Your task to perform on an android device: Show me popular games on the Play Store Image 0: 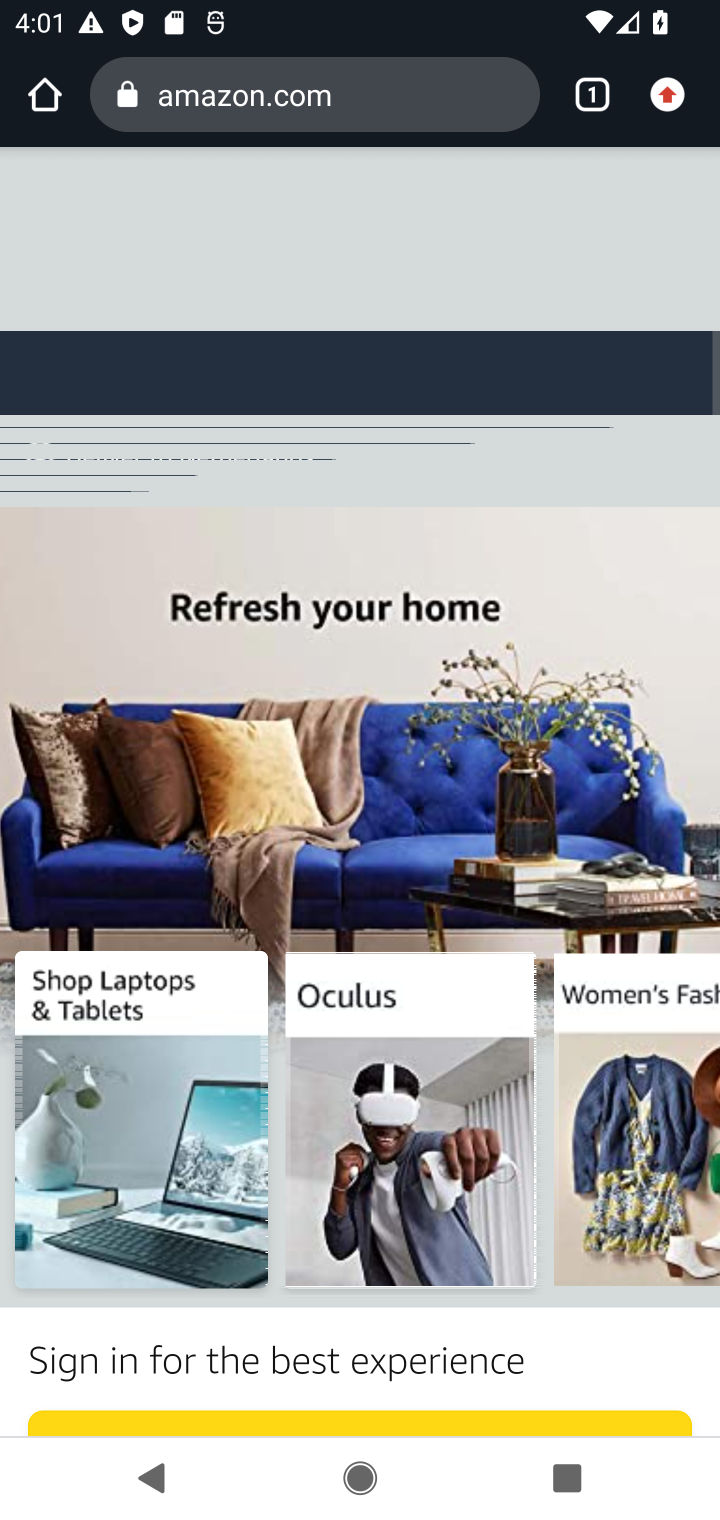
Step 0: press home button
Your task to perform on an android device: Show me popular games on the Play Store Image 1: 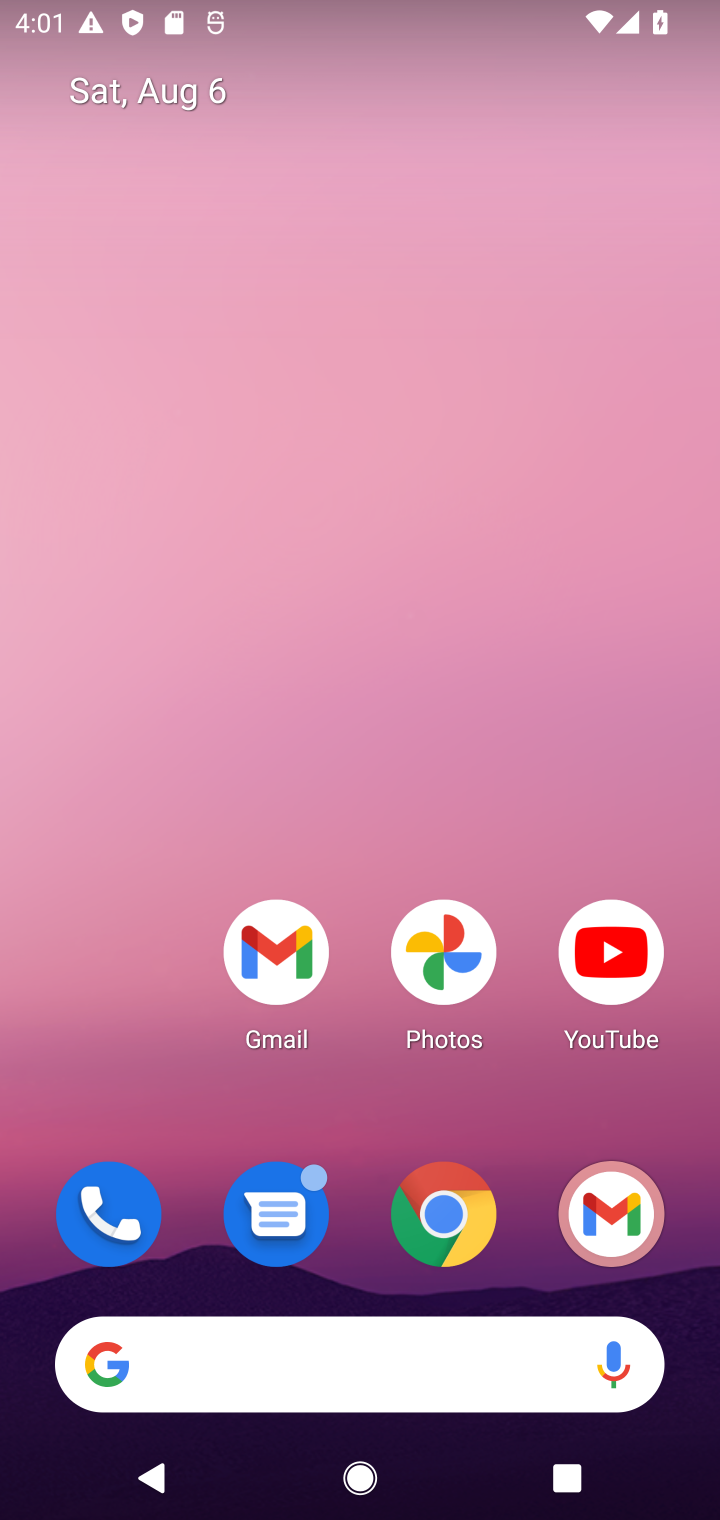
Step 1: drag from (361, 1264) to (365, 528)
Your task to perform on an android device: Show me popular games on the Play Store Image 2: 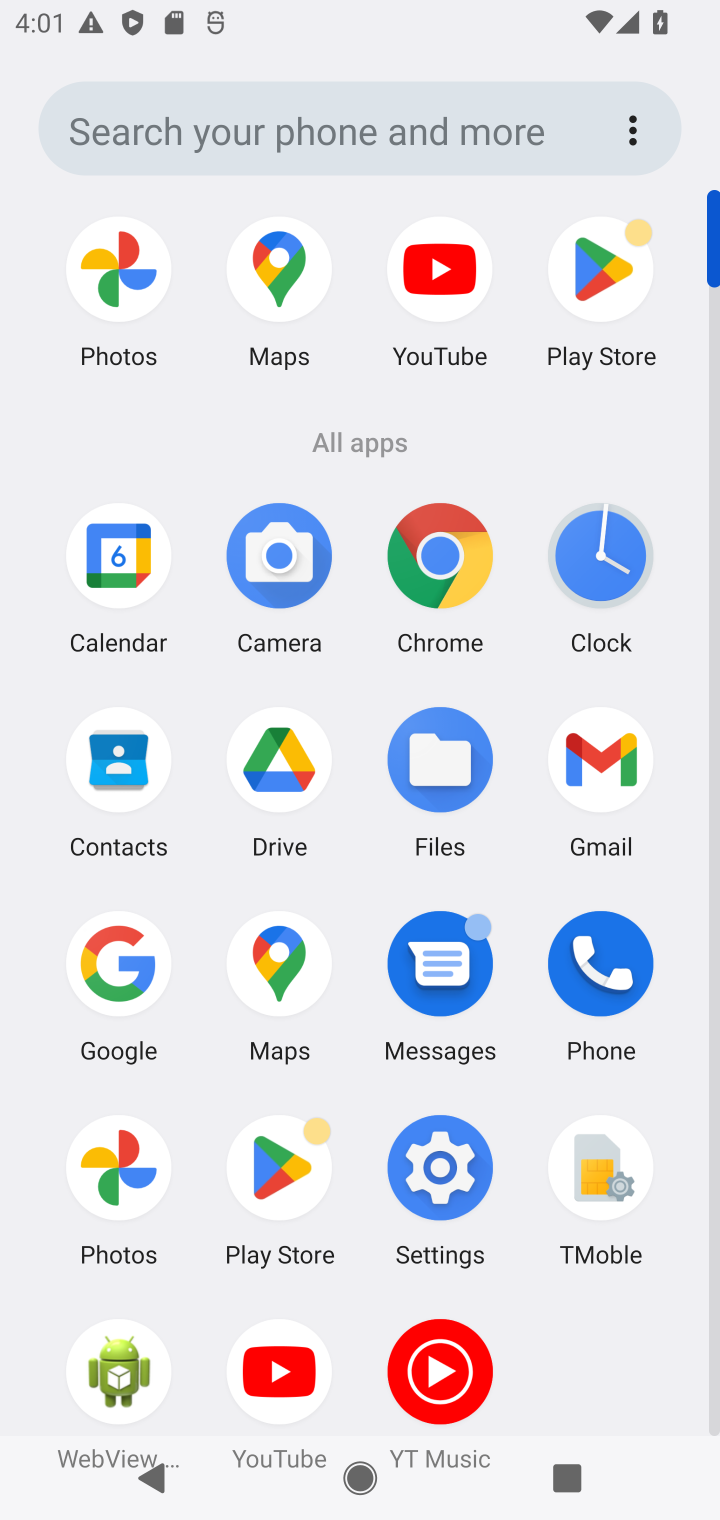
Step 2: click (299, 1188)
Your task to perform on an android device: Show me popular games on the Play Store Image 3: 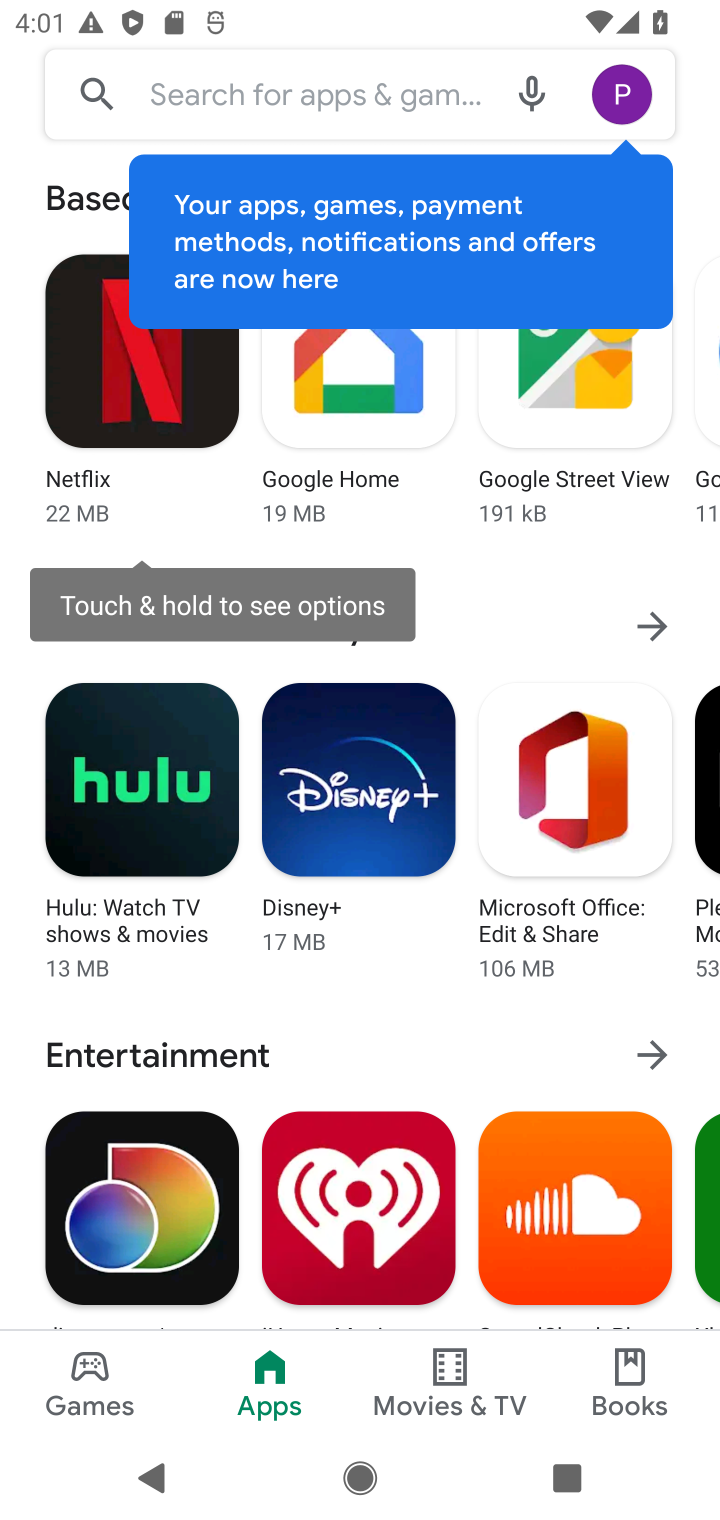
Step 3: click (65, 1403)
Your task to perform on an android device: Show me popular games on the Play Store Image 4: 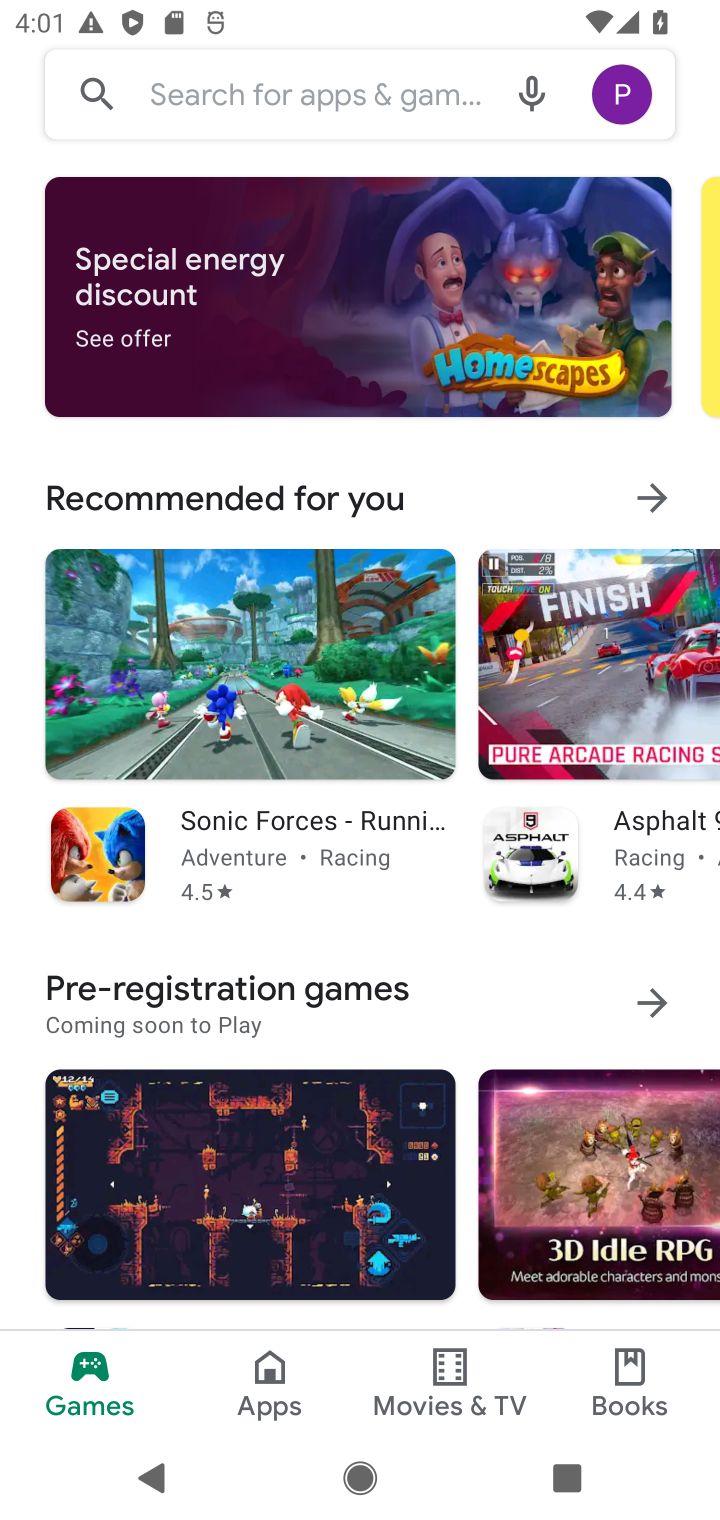
Step 4: task complete